Your task to perform on an android device: delete browsing data in the chrome app Image 0: 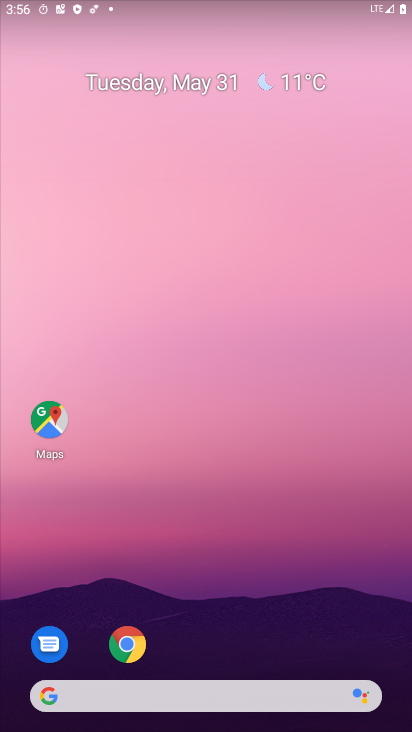
Step 0: drag from (244, 634) to (270, 176)
Your task to perform on an android device: delete browsing data in the chrome app Image 1: 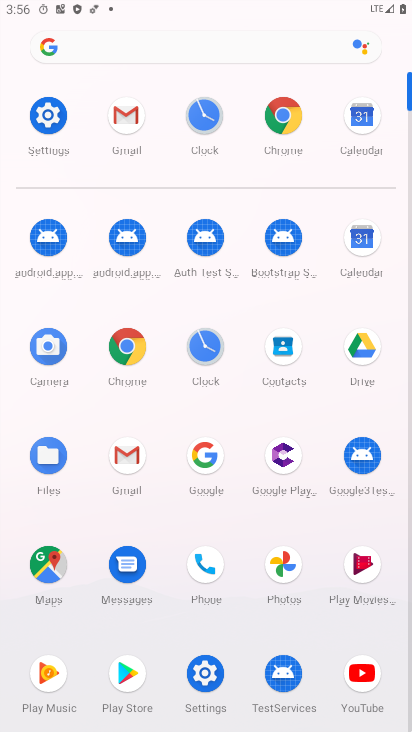
Step 1: click (291, 119)
Your task to perform on an android device: delete browsing data in the chrome app Image 2: 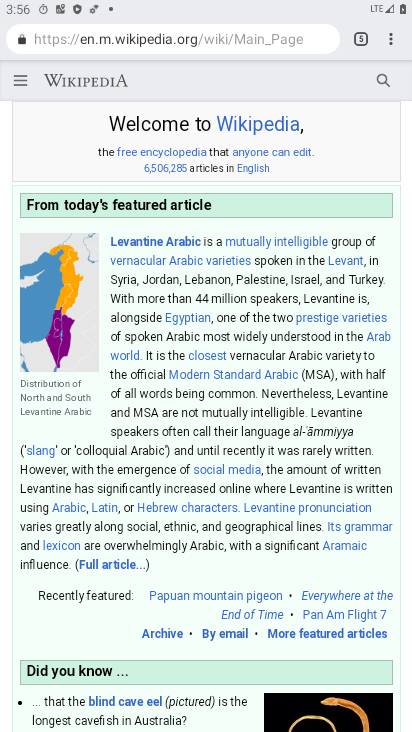
Step 2: click (395, 36)
Your task to perform on an android device: delete browsing data in the chrome app Image 3: 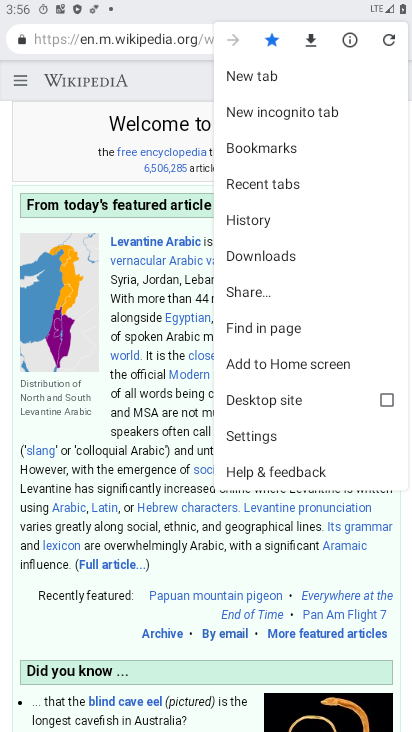
Step 3: click (247, 224)
Your task to perform on an android device: delete browsing data in the chrome app Image 4: 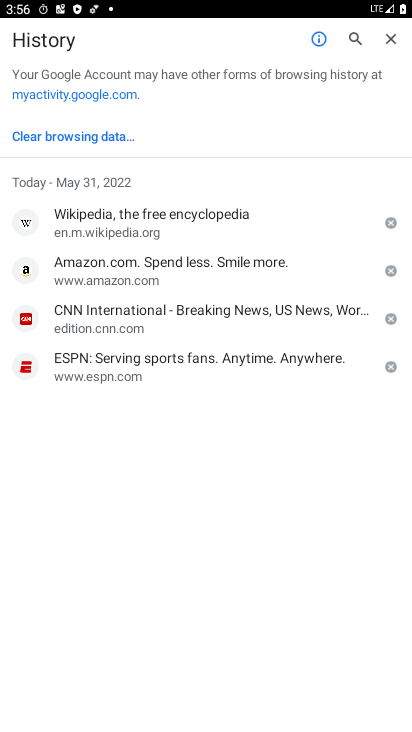
Step 4: click (73, 130)
Your task to perform on an android device: delete browsing data in the chrome app Image 5: 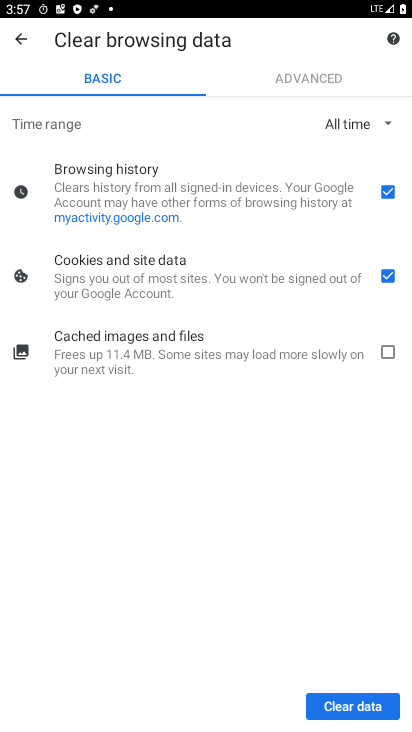
Step 5: click (363, 709)
Your task to perform on an android device: delete browsing data in the chrome app Image 6: 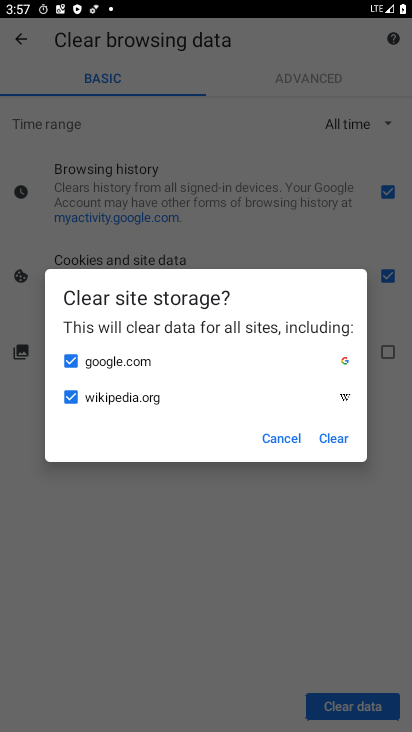
Step 6: click (339, 434)
Your task to perform on an android device: delete browsing data in the chrome app Image 7: 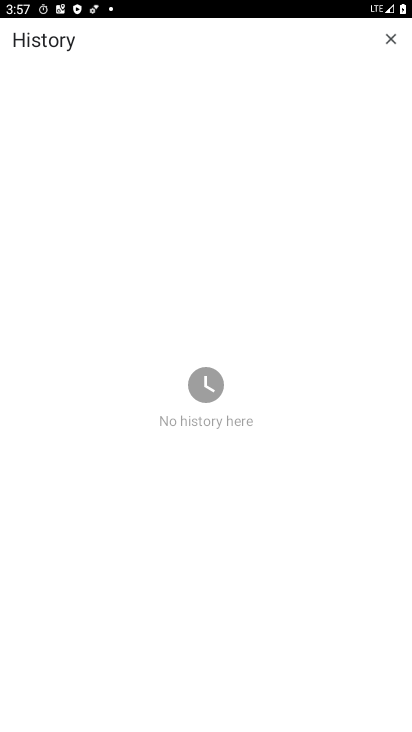
Step 7: task complete